Your task to perform on an android device: Open Google Image 0: 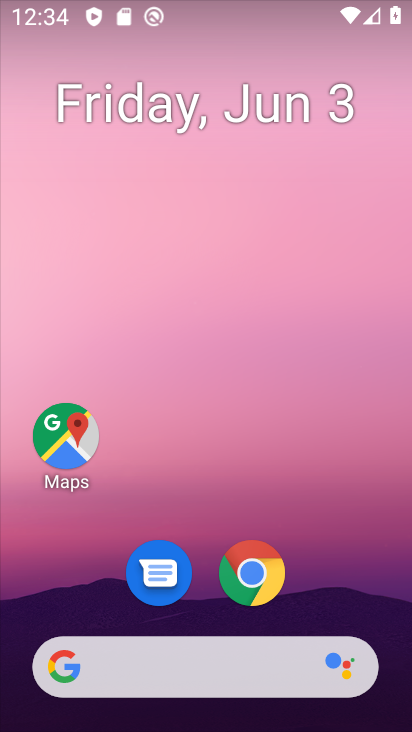
Step 0: drag from (158, 731) to (179, 132)
Your task to perform on an android device: Open Google Image 1: 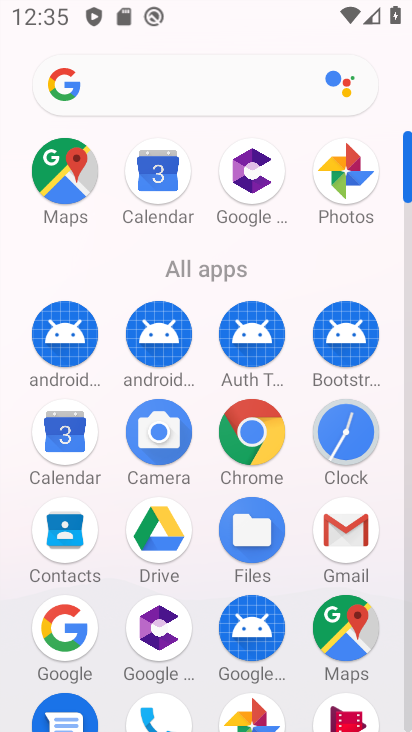
Step 1: click (78, 635)
Your task to perform on an android device: Open Google Image 2: 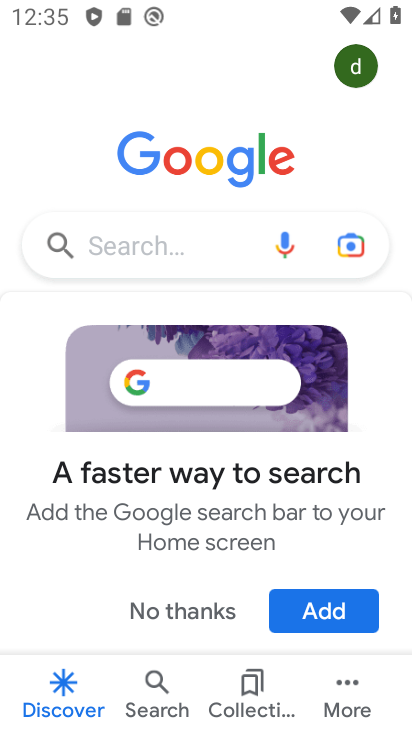
Step 2: task complete